Your task to perform on an android device: refresh tabs in the chrome app Image 0: 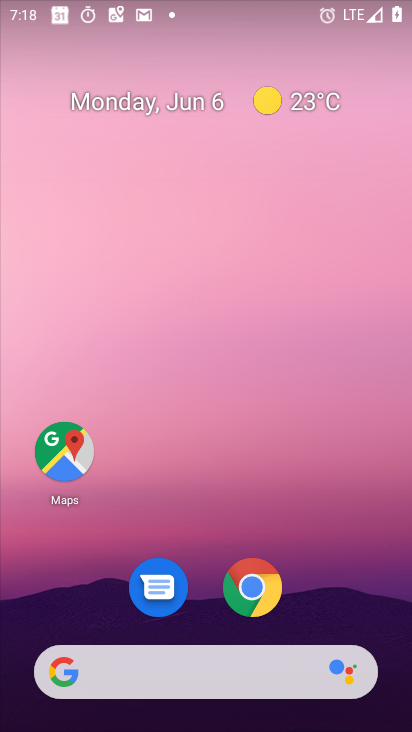
Step 0: drag from (387, 644) to (268, 7)
Your task to perform on an android device: refresh tabs in the chrome app Image 1: 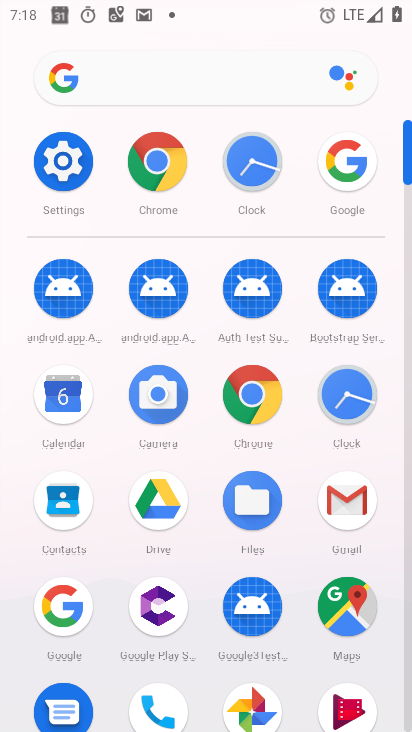
Step 1: click (158, 153)
Your task to perform on an android device: refresh tabs in the chrome app Image 2: 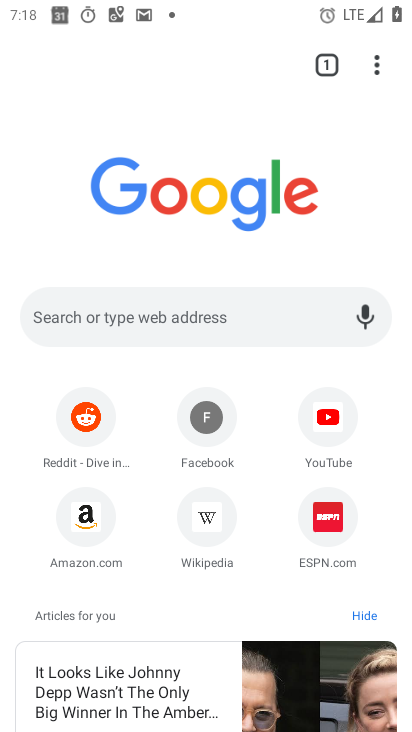
Step 2: click (369, 61)
Your task to perform on an android device: refresh tabs in the chrome app Image 3: 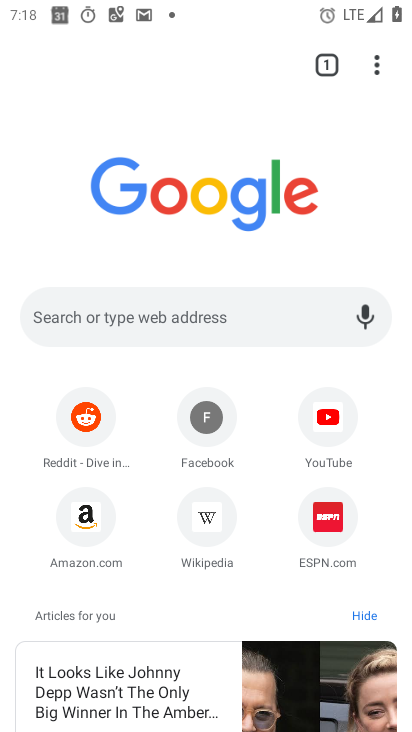
Step 3: click (378, 60)
Your task to perform on an android device: refresh tabs in the chrome app Image 4: 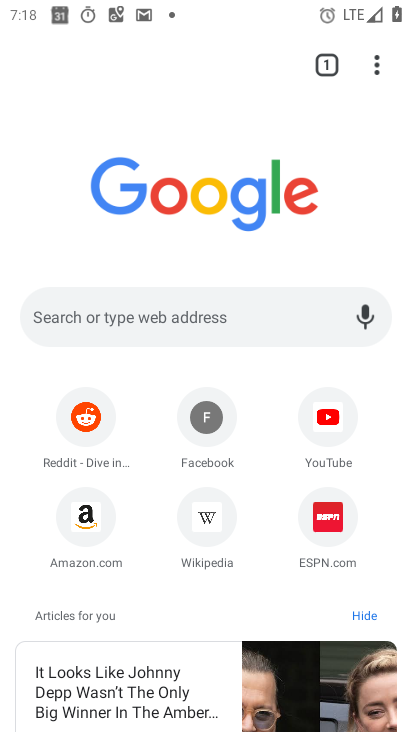
Step 4: click (378, 60)
Your task to perform on an android device: refresh tabs in the chrome app Image 5: 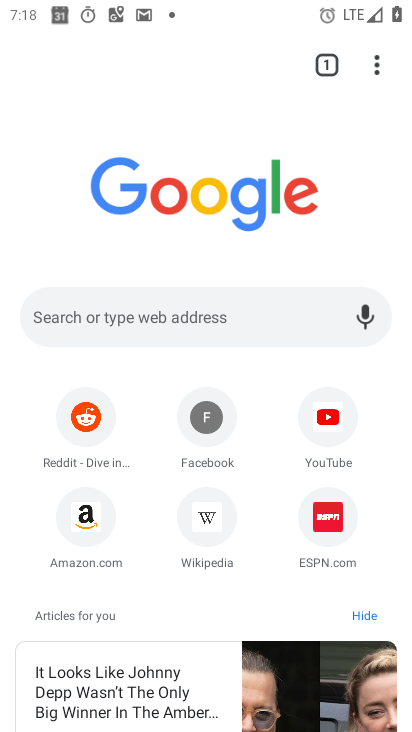
Step 5: click (378, 54)
Your task to perform on an android device: refresh tabs in the chrome app Image 6: 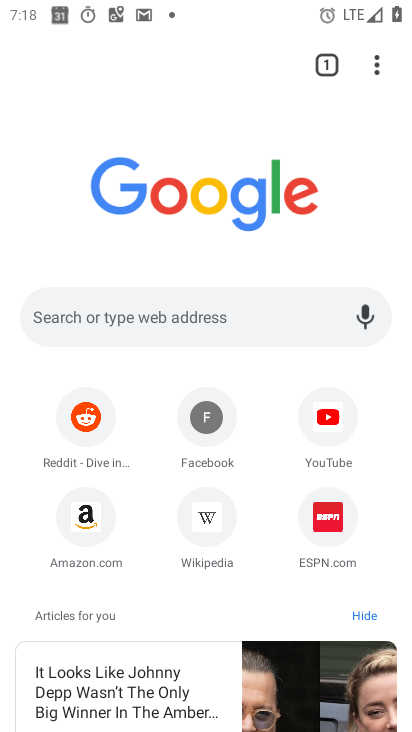
Step 6: click (376, 61)
Your task to perform on an android device: refresh tabs in the chrome app Image 7: 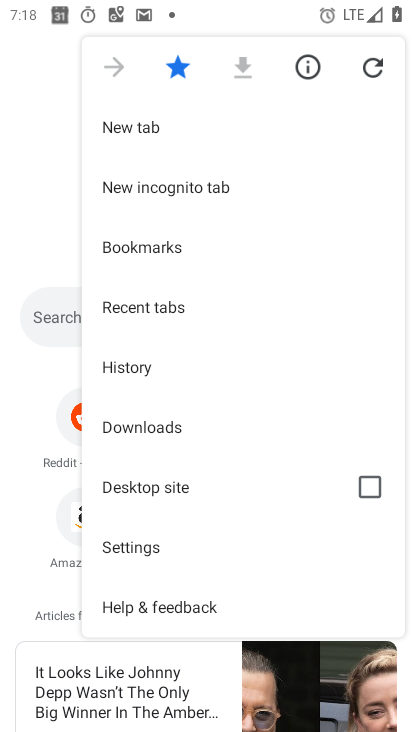
Step 7: click (376, 61)
Your task to perform on an android device: refresh tabs in the chrome app Image 8: 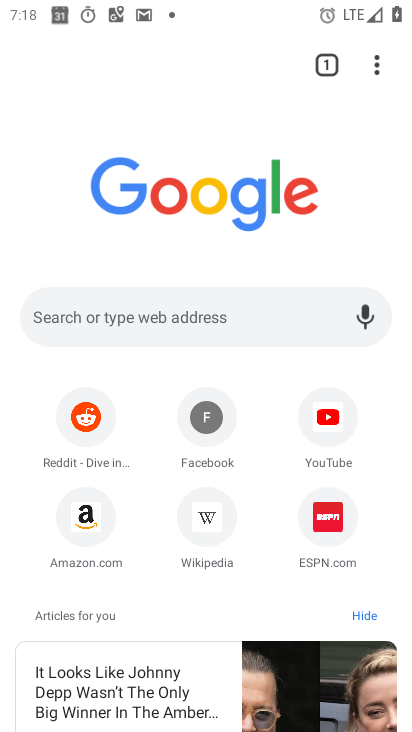
Step 8: task complete